Your task to perform on an android device: install app "LinkedIn" Image 0: 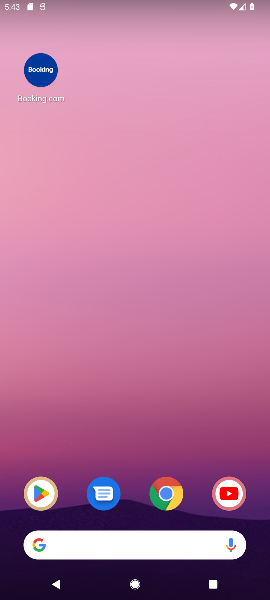
Step 0: drag from (141, 536) to (136, 232)
Your task to perform on an android device: install app "LinkedIn" Image 1: 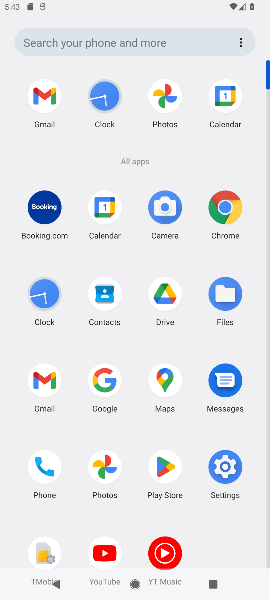
Step 1: click (170, 469)
Your task to perform on an android device: install app "LinkedIn" Image 2: 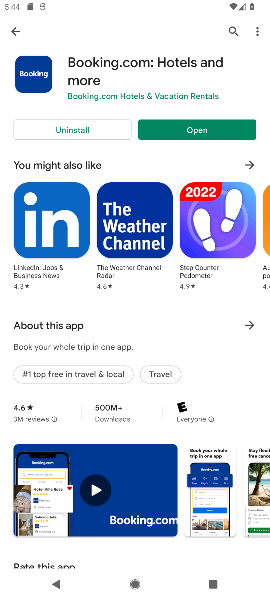
Step 2: click (19, 33)
Your task to perform on an android device: install app "LinkedIn" Image 3: 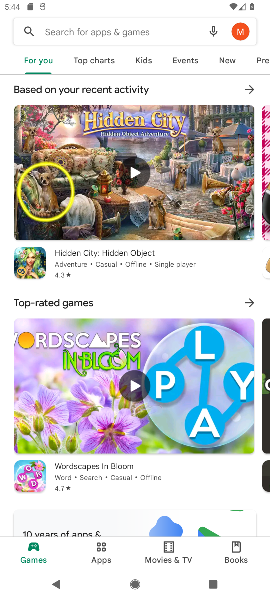
Step 3: click (71, 31)
Your task to perform on an android device: install app "LinkedIn" Image 4: 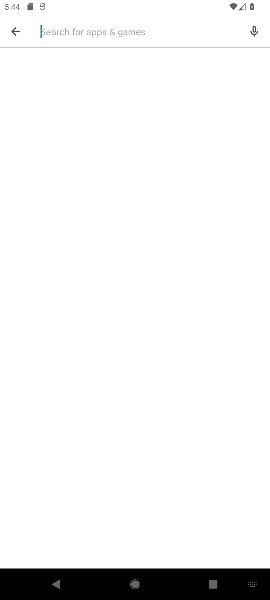
Step 4: type "LinkedIn"
Your task to perform on an android device: install app "LinkedIn" Image 5: 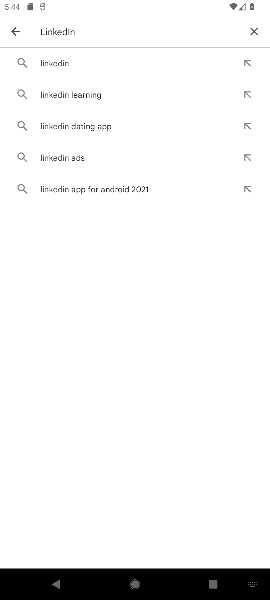
Step 5: click (57, 74)
Your task to perform on an android device: install app "LinkedIn" Image 6: 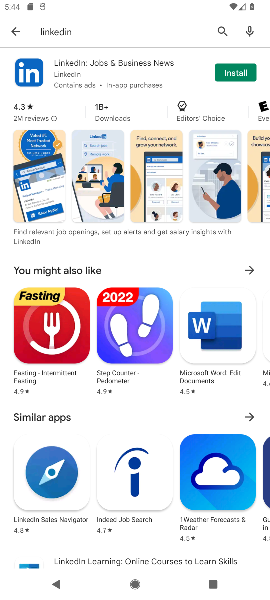
Step 6: click (237, 73)
Your task to perform on an android device: install app "LinkedIn" Image 7: 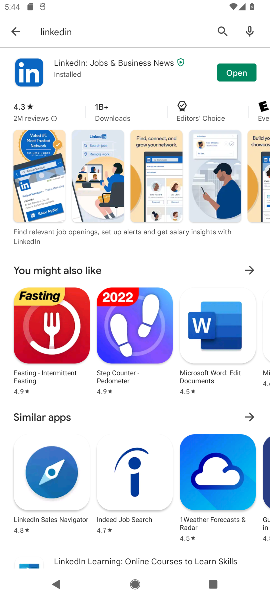
Step 7: click (224, 73)
Your task to perform on an android device: install app "LinkedIn" Image 8: 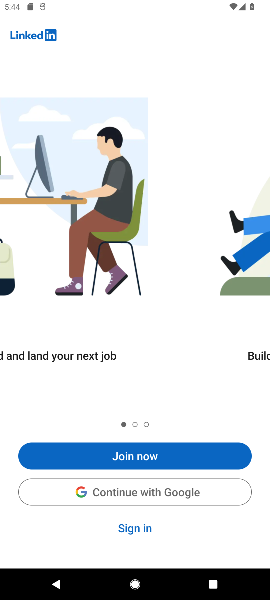
Step 8: task complete